Your task to perform on an android device: Search for "amazon basics triple a" on target, select the first entry, and add it to the cart. Image 0: 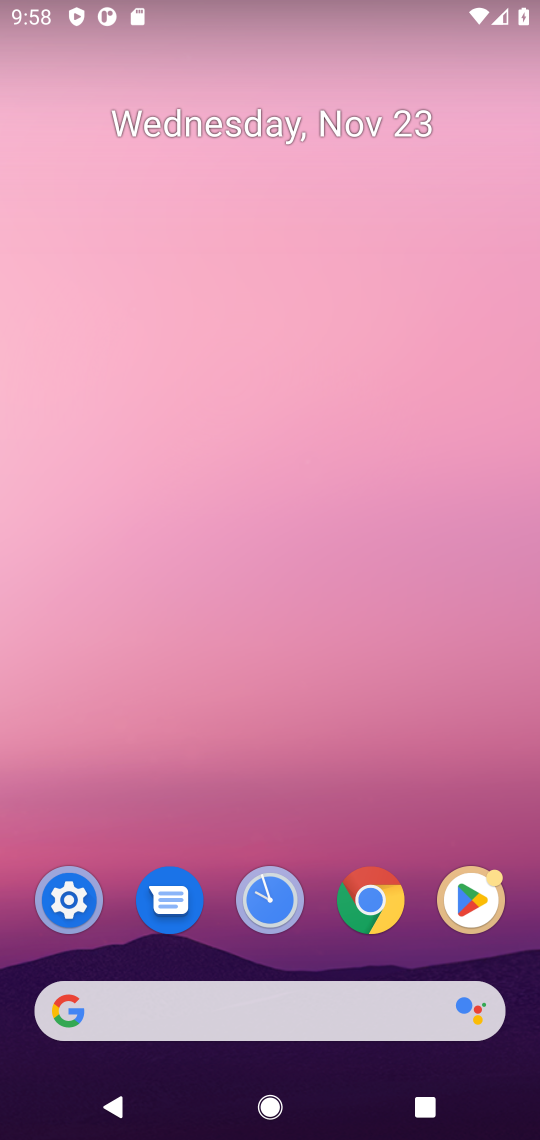
Step 0: click (318, 999)
Your task to perform on an android device: Search for "amazon basics triple a" on target, select the first entry, and add it to the cart. Image 1: 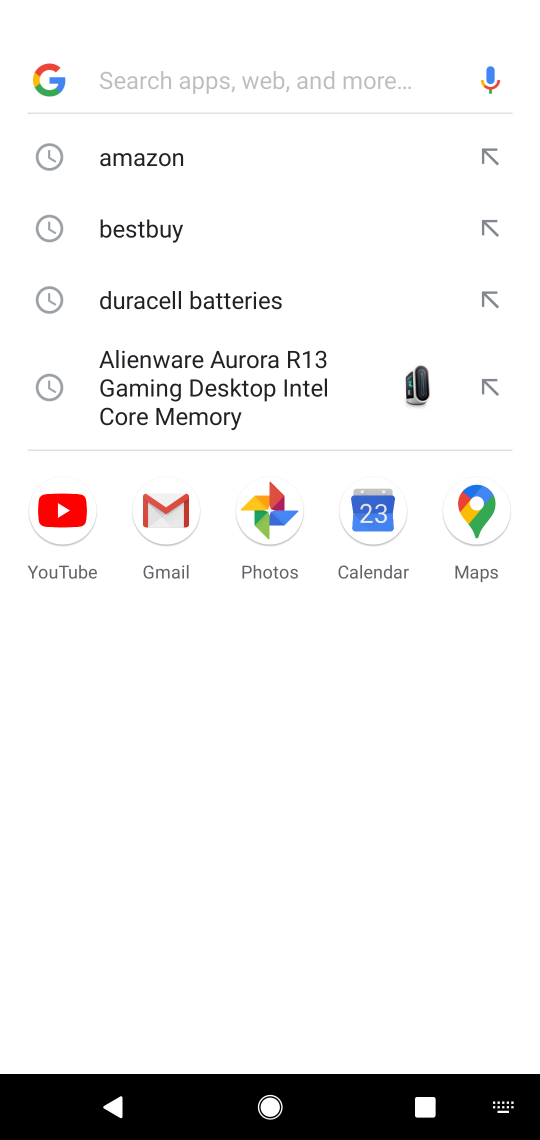
Step 1: type "amazon"
Your task to perform on an android device: Search for "amazon basics triple a" on target, select the first entry, and add it to the cart. Image 2: 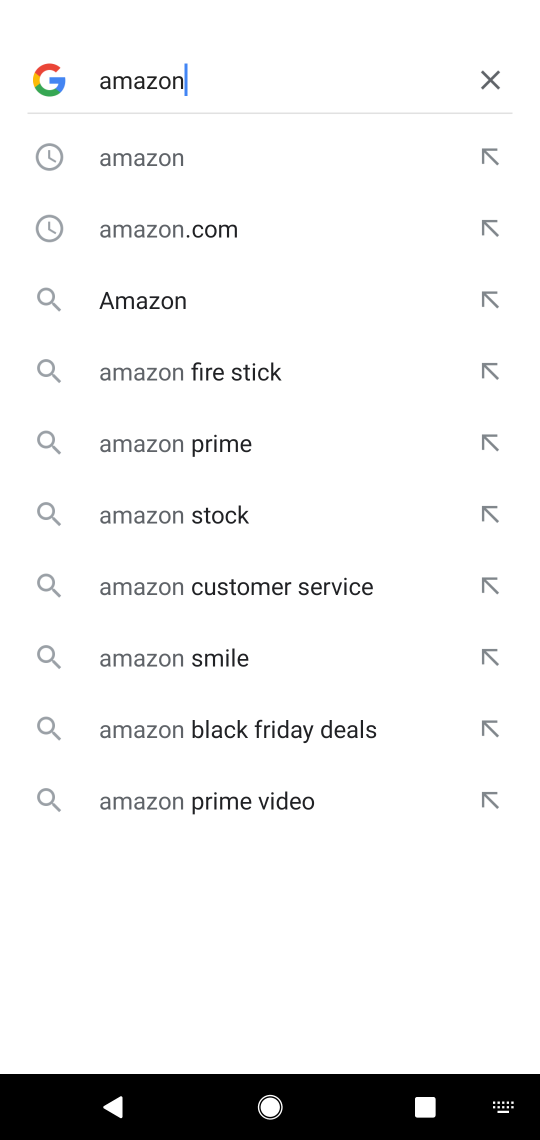
Step 2: click (148, 166)
Your task to perform on an android device: Search for "amazon basics triple a" on target, select the first entry, and add it to the cart. Image 3: 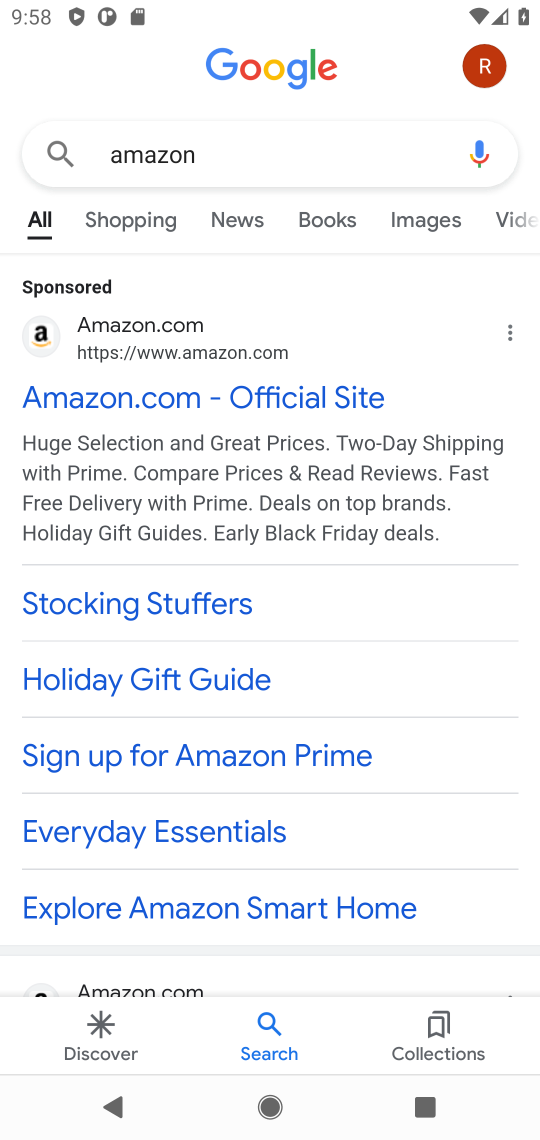
Step 3: click (136, 406)
Your task to perform on an android device: Search for "amazon basics triple a" on target, select the first entry, and add it to the cart. Image 4: 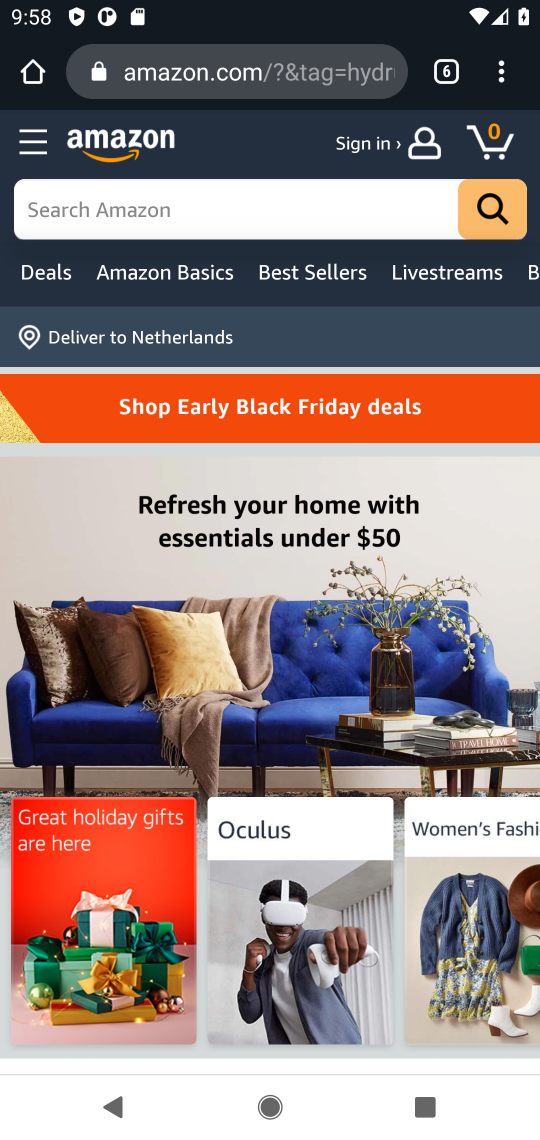
Step 4: click (152, 205)
Your task to perform on an android device: Search for "amazon basics triple a" on target, select the first entry, and add it to the cart. Image 5: 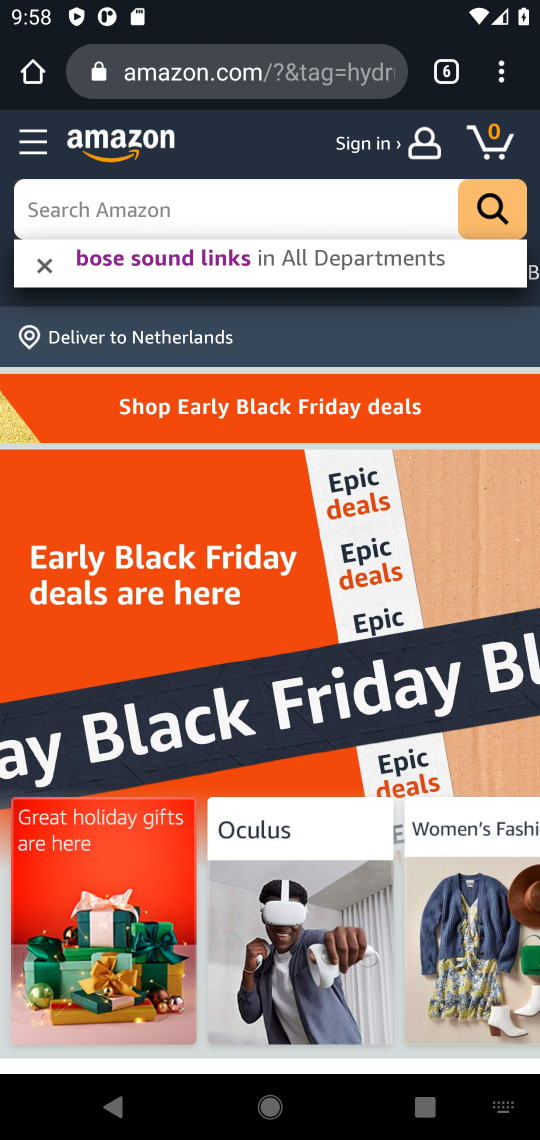
Step 5: type "amazon basic triple "
Your task to perform on an android device: Search for "amazon basics triple a" on target, select the first entry, and add it to the cart. Image 6: 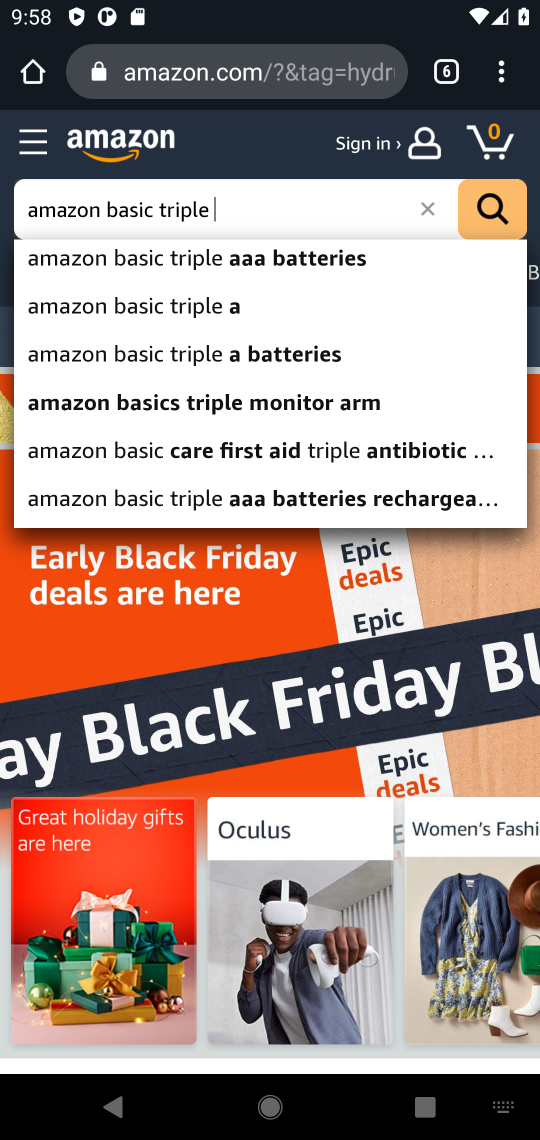
Step 6: click (157, 271)
Your task to perform on an android device: Search for "amazon basics triple a" on target, select the first entry, and add it to the cart. Image 7: 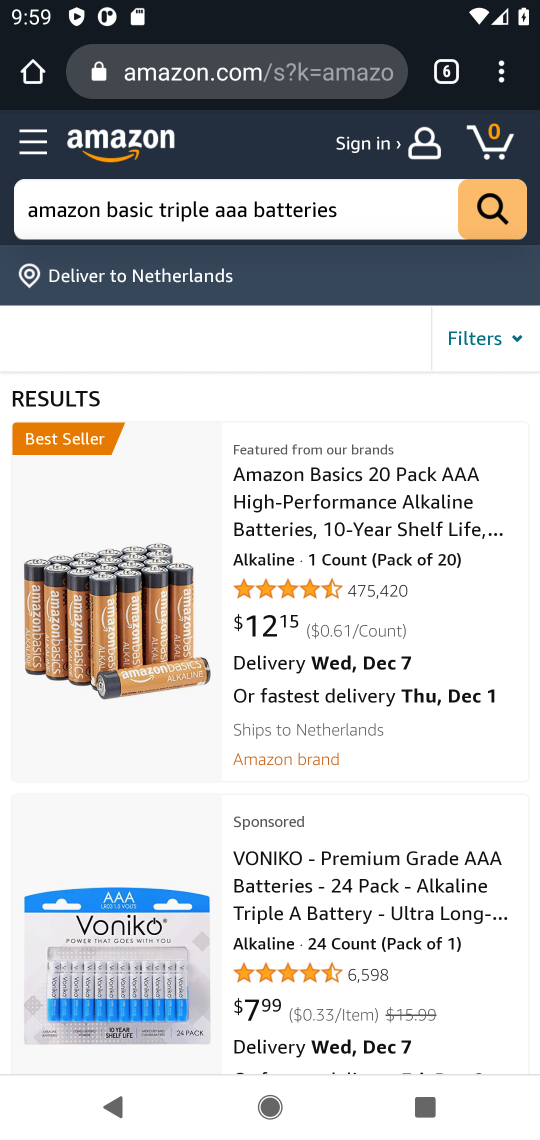
Step 7: click (262, 505)
Your task to perform on an android device: Search for "amazon basics triple a" on target, select the first entry, and add it to the cart. Image 8: 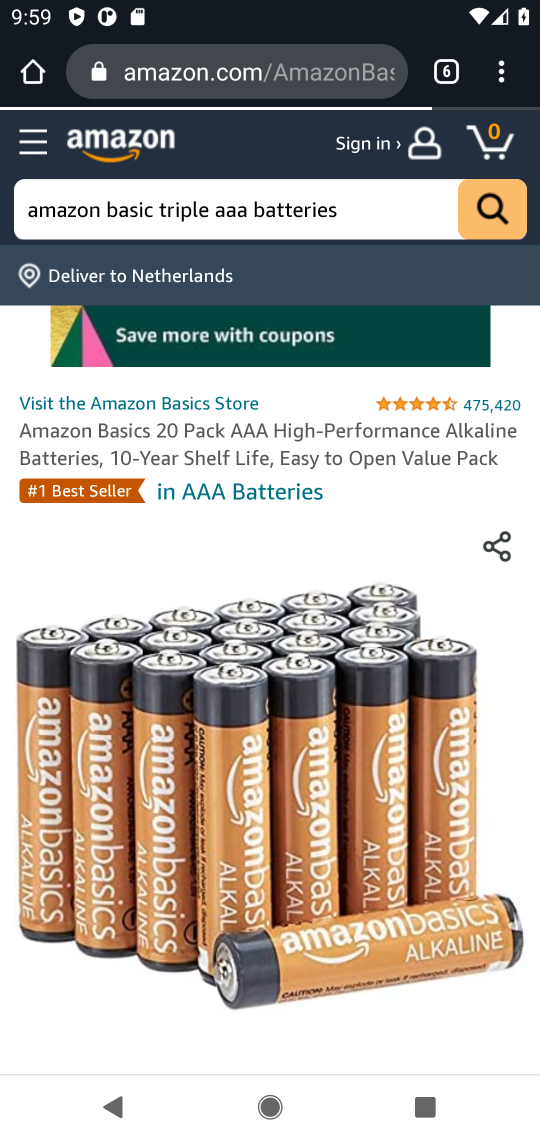
Step 8: drag from (404, 963) to (371, 528)
Your task to perform on an android device: Search for "amazon basics triple a" on target, select the first entry, and add it to the cart. Image 9: 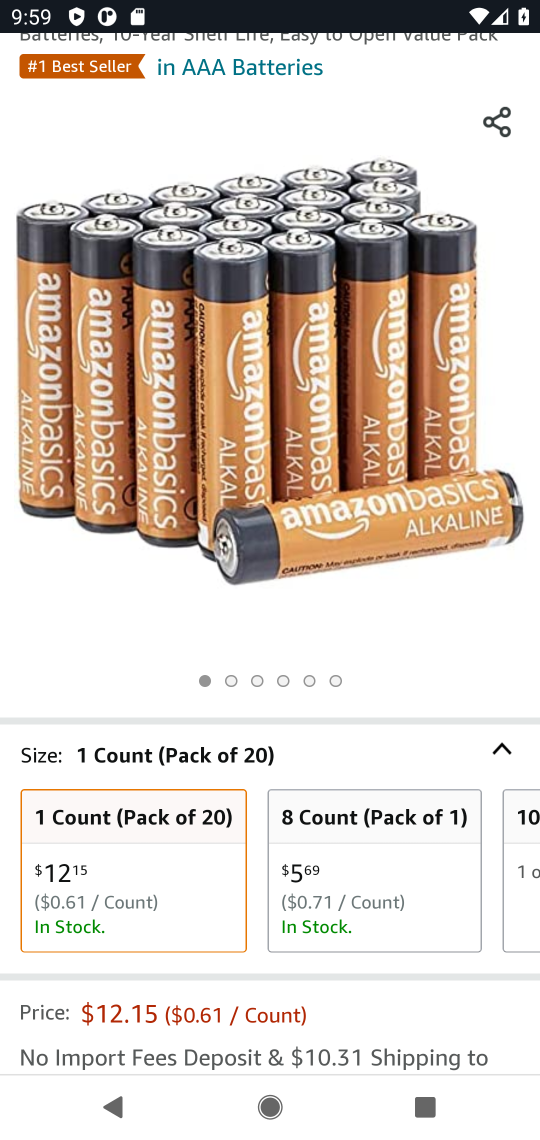
Step 9: drag from (399, 1006) to (364, 382)
Your task to perform on an android device: Search for "amazon basics triple a" on target, select the first entry, and add it to the cart. Image 10: 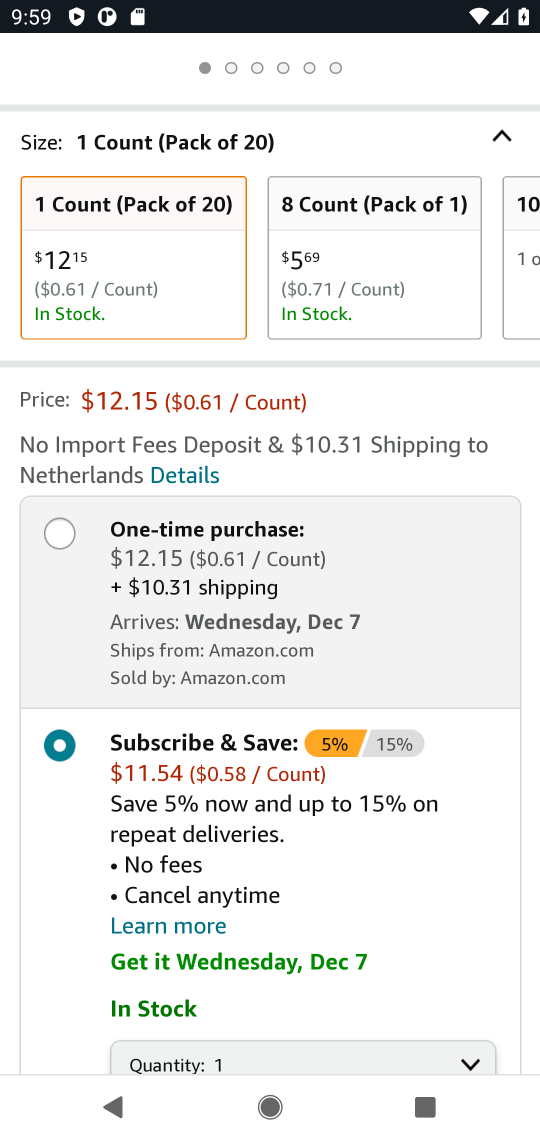
Step 10: drag from (417, 941) to (422, 749)
Your task to perform on an android device: Search for "amazon basics triple a" on target, select the first entry, and add it to the cart. Image 11: 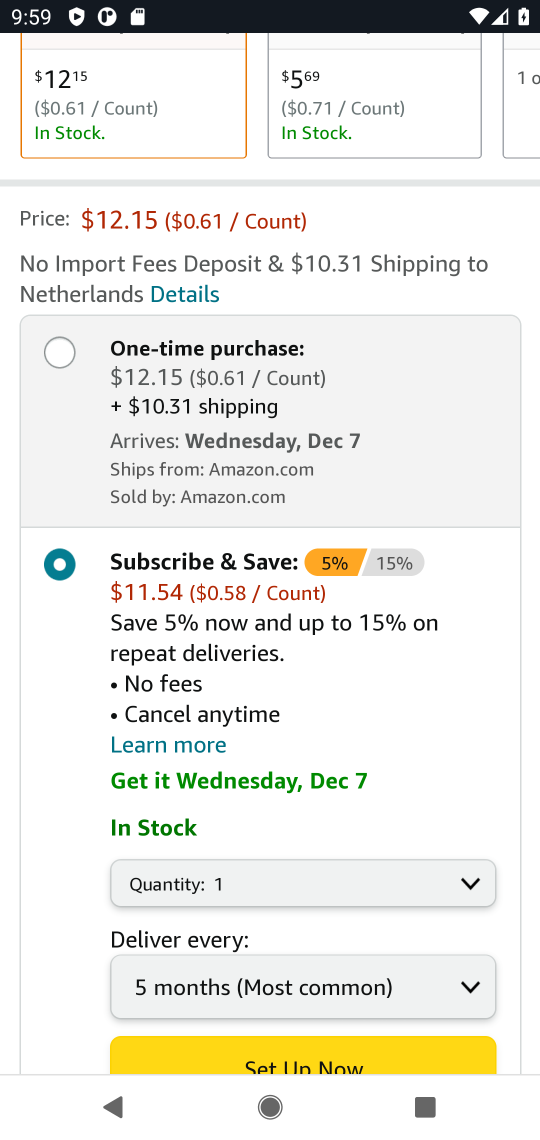
Step 11: drag from (487, 826) to (474, 544)
Your task to perform on an android device: Search for "amazon basics triple a" on target, select the first entry, and add it to the cart. Image 12: 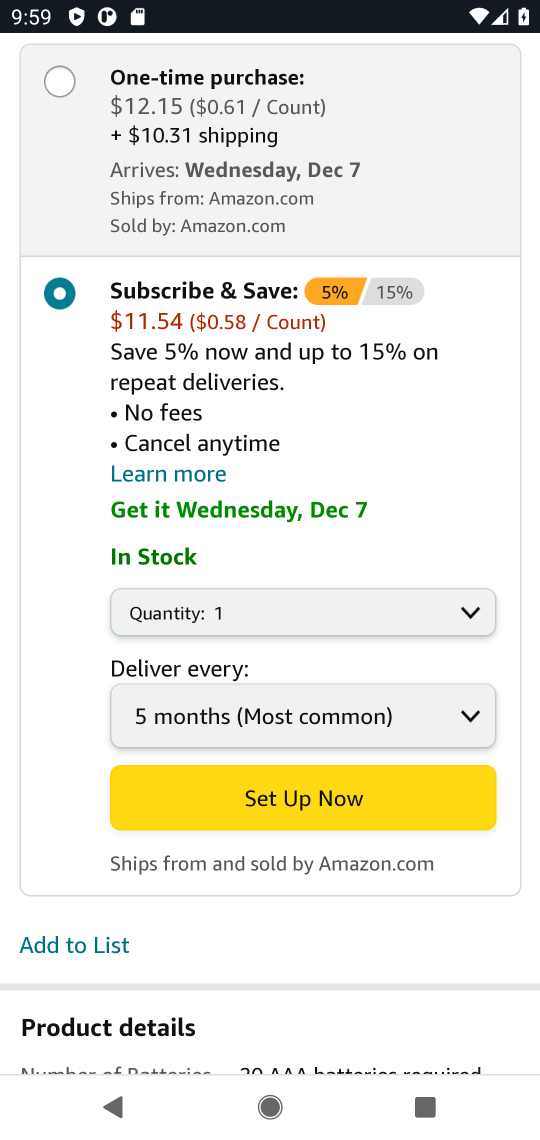
Step 12: click (410, 782)
Your task to perform on an android device: Search for "amazon basics triple a" on target, select the first entry, and add it to the cart. Image 13: 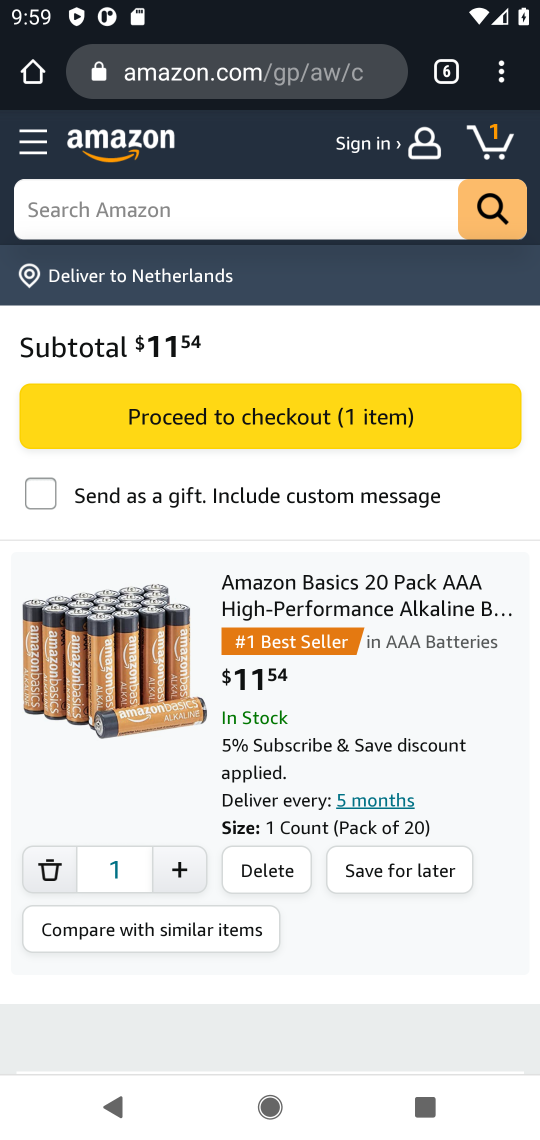
Step 13: task complete